Your task to perform on an android device: toggle airplane mode Image 0: 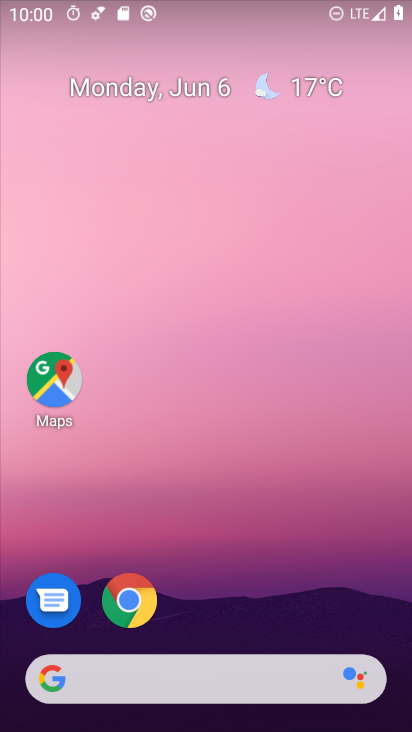
Step 0: drag from (202, 384) to (124, 0)
Your task to perform on an android device: toggle airplane mode Image 1: 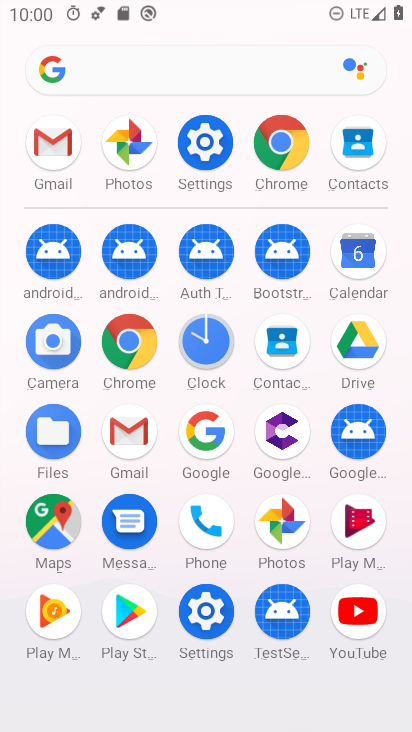
Step 1: click (214, 156)
Your task to perform on an android device: toggle airplane mode Image 2: 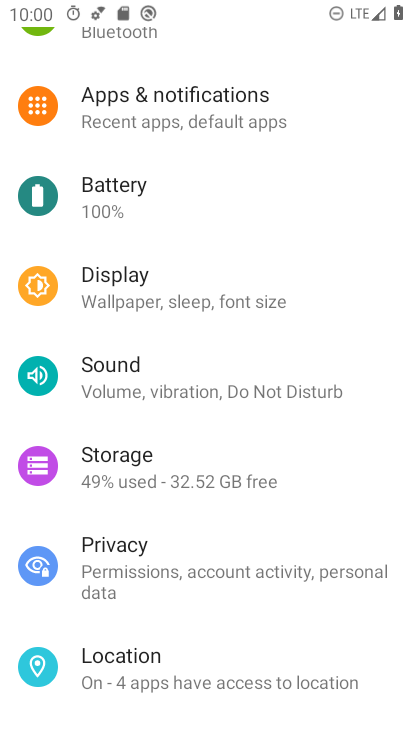
Step 2: drag from (246, 192) to (271, 634)
Your task to perform on an android device: toggle airplane mode Image 3: 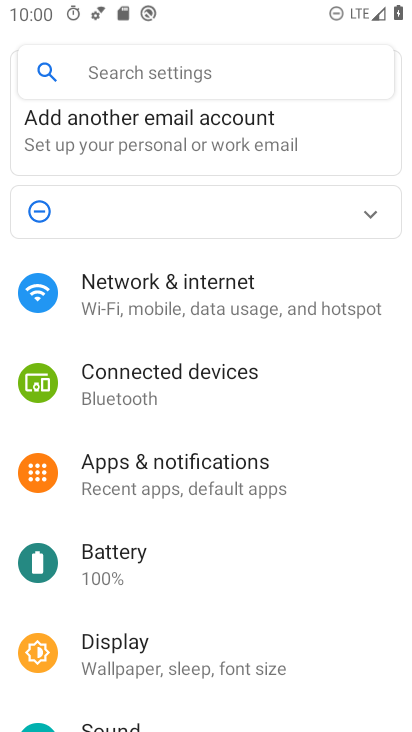
Step 3: click (219, 305)
Your task to perform on an android device: toggle airplane mode Image 4: 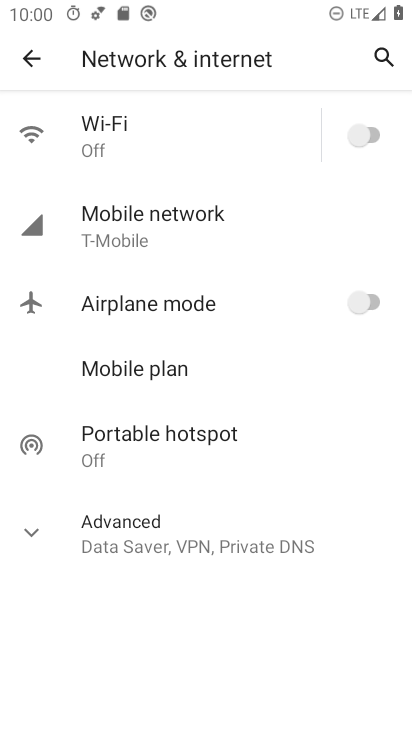
Step 4: click (354, 309)
Your task to perform on an android device: toggle airplane mode Image 5: 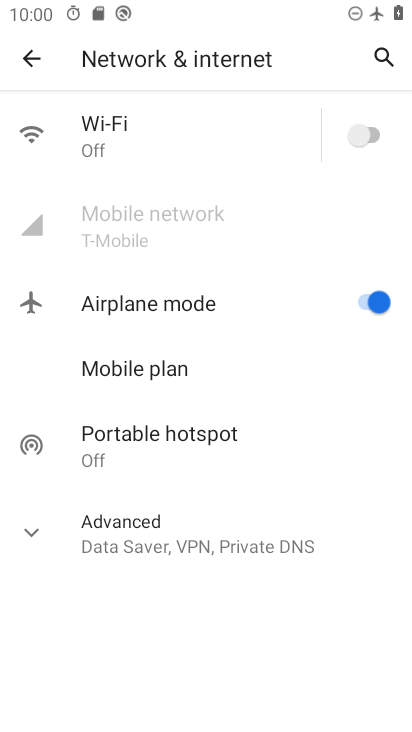
Step 5: task complete